Your task to perform on an android device: find snoozed emails in the gmail app Image 0: 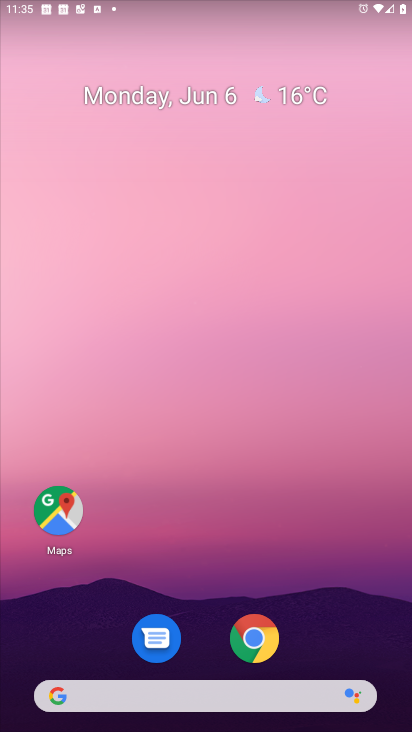
Step 0: drag from (244, 709) to (280, 129)
Your task to perform on an android device: find snoozed emails in the gmail app Image 1: 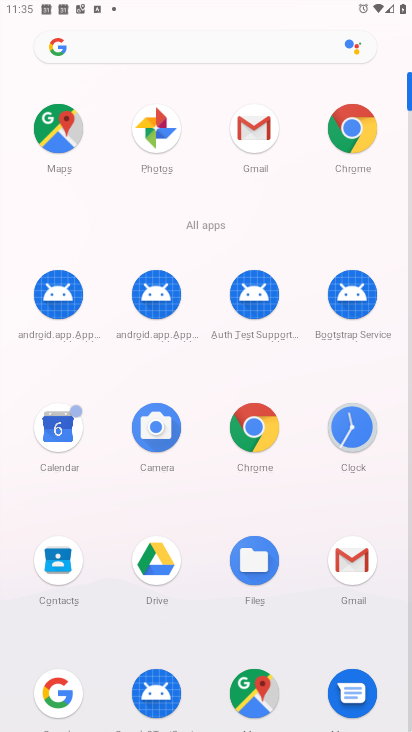
Step 1: click (360, 552)
Your task to perform on an android device: find snoozed emails in the gmail app Image 2: 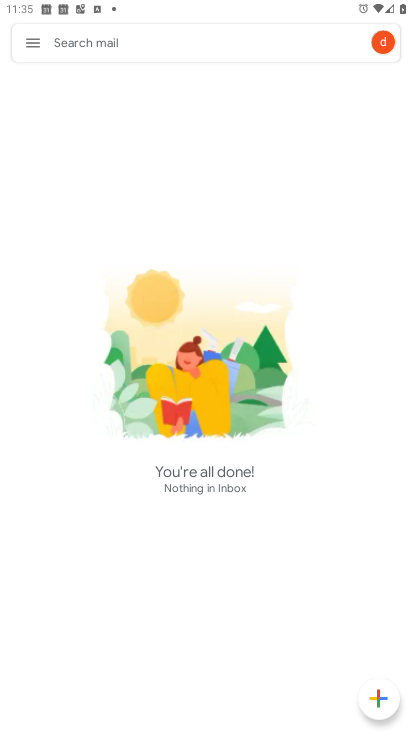
Step 2: click (28, 48)
Your task to perform on an android device: find snoozed emails in the gmail app Image 3: 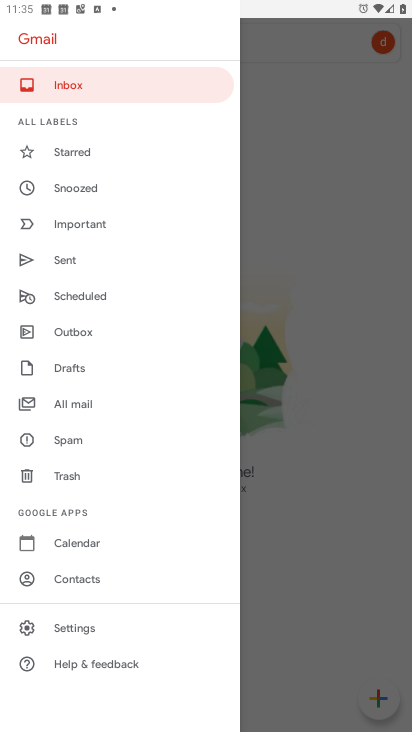
Step 3: click (94, 195)
Your task to perform on an android device: find snoozed emails in the gmail app Image 4: 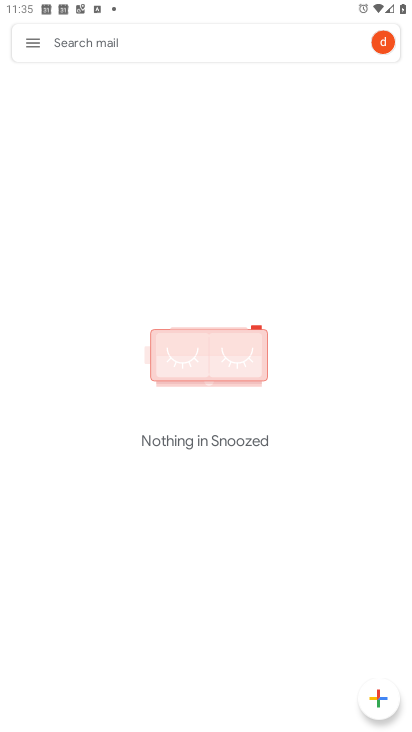
Step 4: task complete